Your task to perform on an android device: Open wifi settings Image 0: 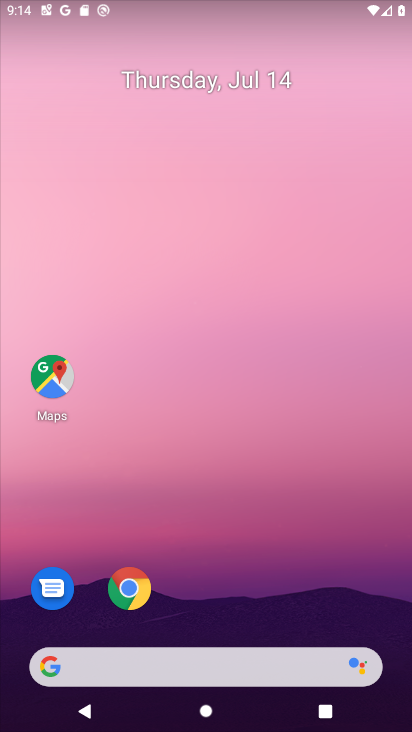
Step 0: drag from (271, 715) to (251, 231)
Your task to perform on an android device: Open wifi settings Image 1: 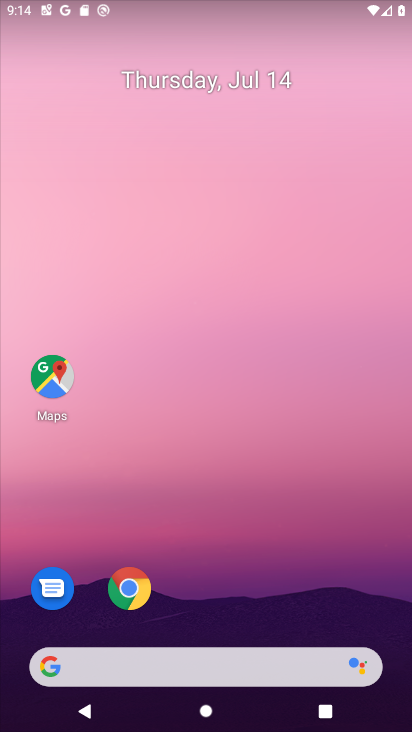
Step 1: drag from (203, 570) to (185, 273)
Your task to perform on an android device: Open wifi settings Image 2: 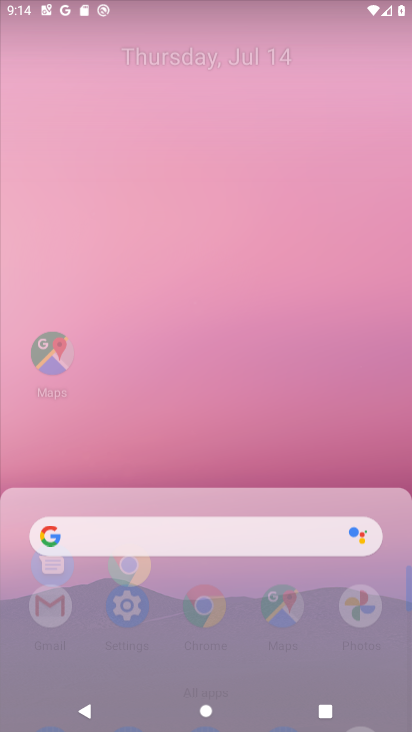
Step 2: drag from (209, 552) to (156, 249)
Your task to perform on an android device: Open wifi settings Image 3: 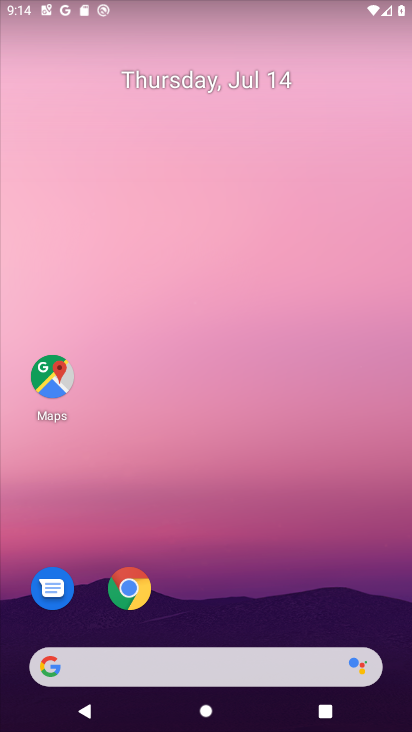
Step 3: drag from (270, 677) to (200, 173)
Your task to perform on an android device: Open wifi settings Image 4: 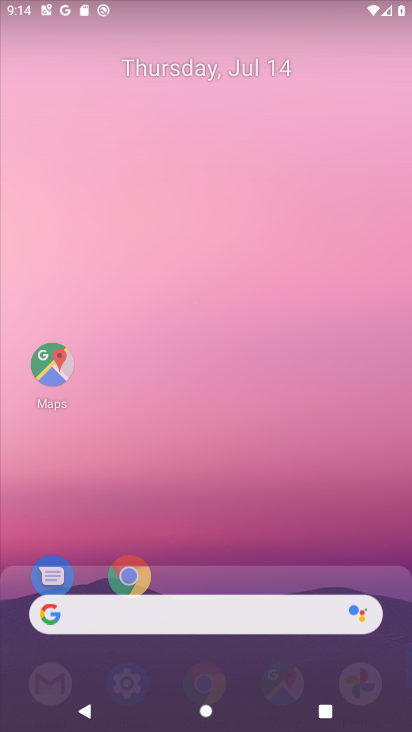
Step 4: drag from (203, 547) to (152, 196)
Your task to perform on an android device: Open wifi settings Image 5: 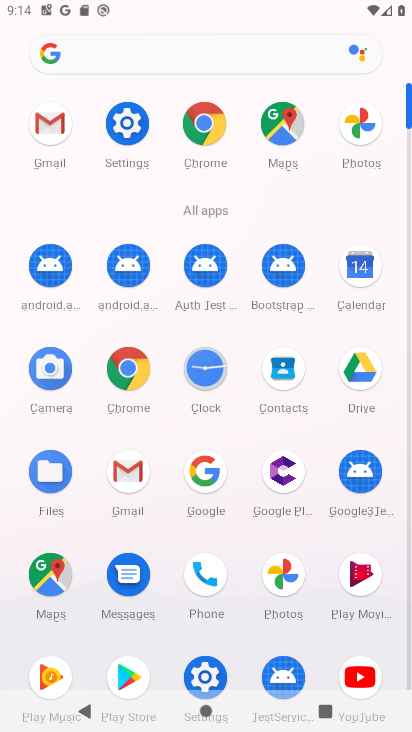
Step 5: drag from (266, 577) to (251, 162)
Your task to perform on an android device: Open wifi settings Image 6: 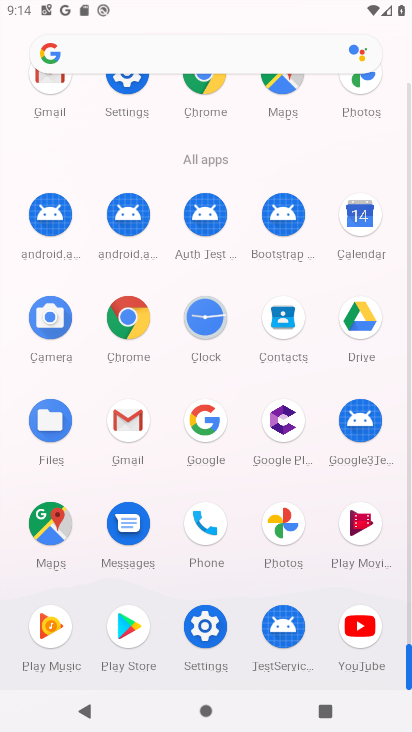
Step 6: click (205, 629)
Your task to perform on an android device: Open wifi settings Image 7: 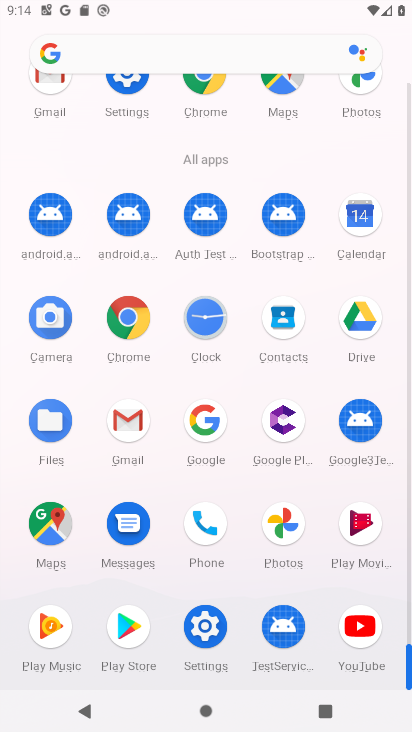
Step 7: click (205, 629)
Your task to perform on an android device: Open wifi settings Image 8: 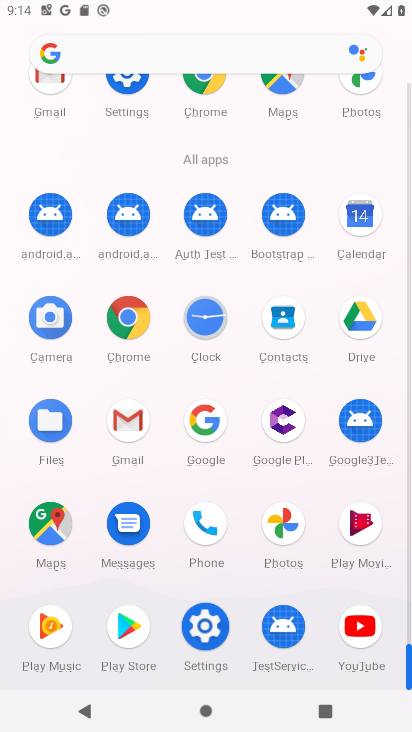
Step 8: click (204, 629)
Your task to perform on an android device: Open wifi settings Image 9: 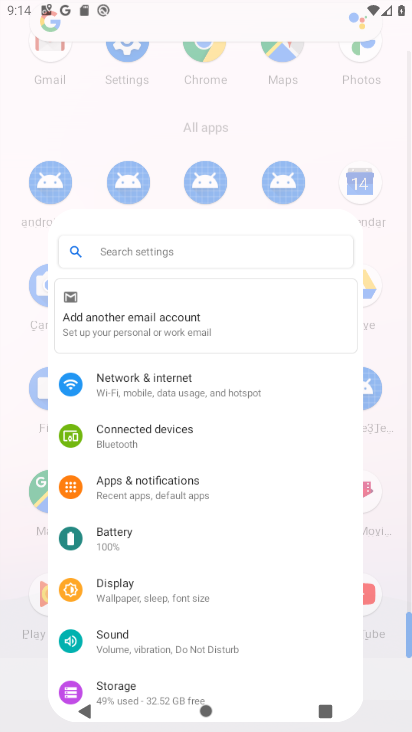
Step 9: click (204, 629)
Your task to perform on an android device: Open wifi settings Image 10: 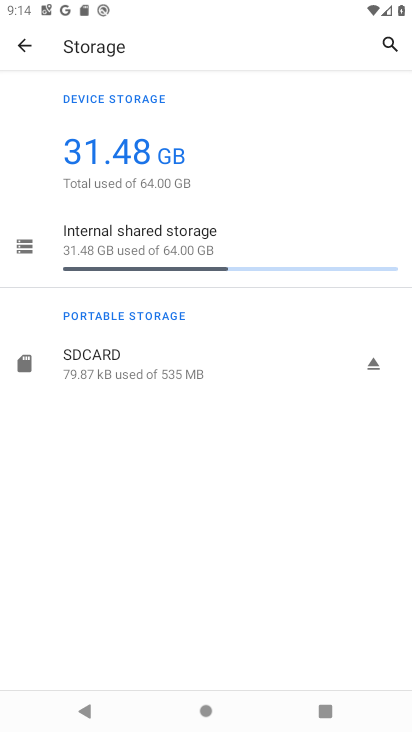
Step 10: click (19, 43)
Your task to perform on an android device: Open wifi settings Image 11: 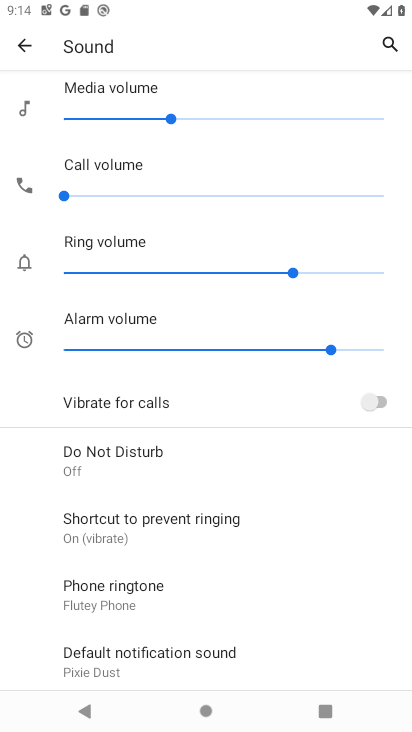
Step 11: click (20, 50)
Your task to perform on an android device: Open wifi settings Image 12: 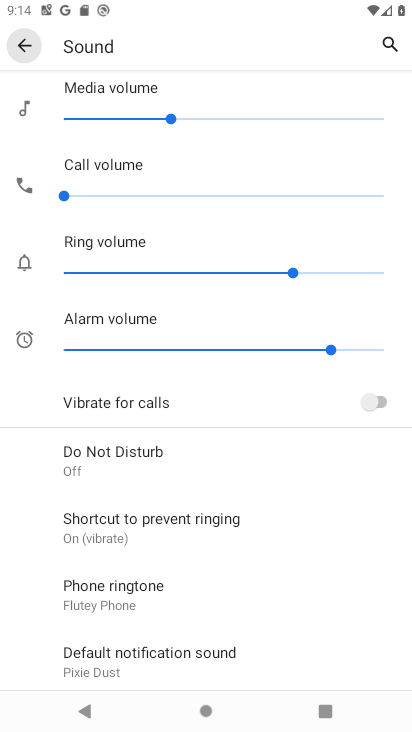
Step 12: click (25, 48)
Your task to perform on an android device: Open wifi settings Image 13: 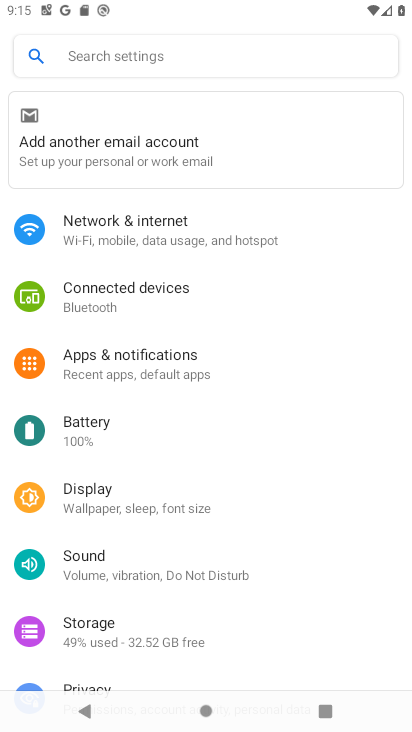
Step 13: click (133, 229)
Your task to perform on an android device: Open wifi settings Image 14: 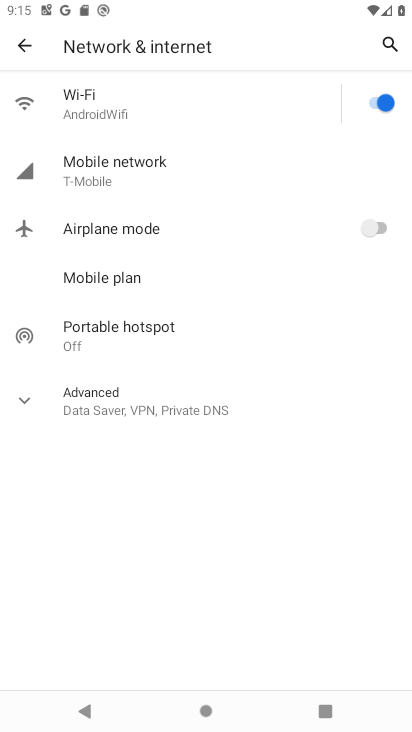
Step 14: task complete